Your task to perform on an android device: Go to location settings Image 0: 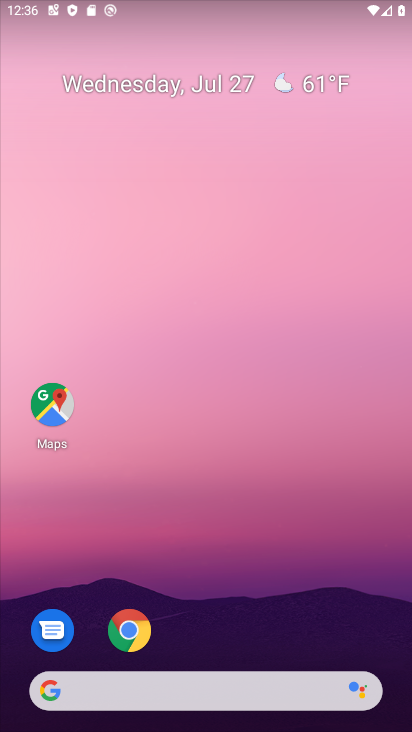
Step 0: drag from (175, 591) to (151, 328)
Your task to perform on an android device: Go to location settings Image 1: 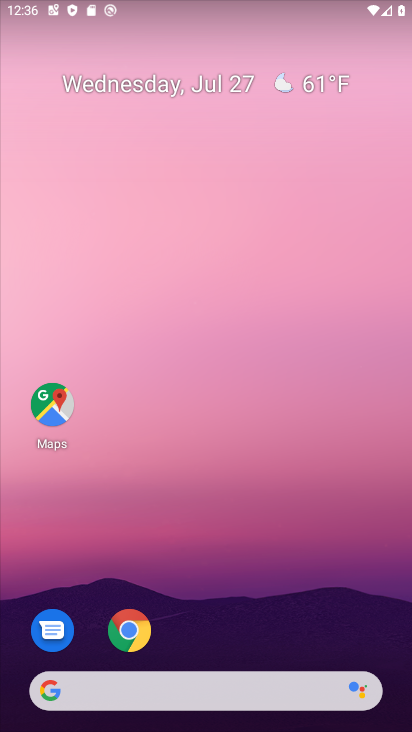
Step 1: drag from (201, 663) to (196, 167)
Your task to perform on an android device: Go to location settings Image 2: 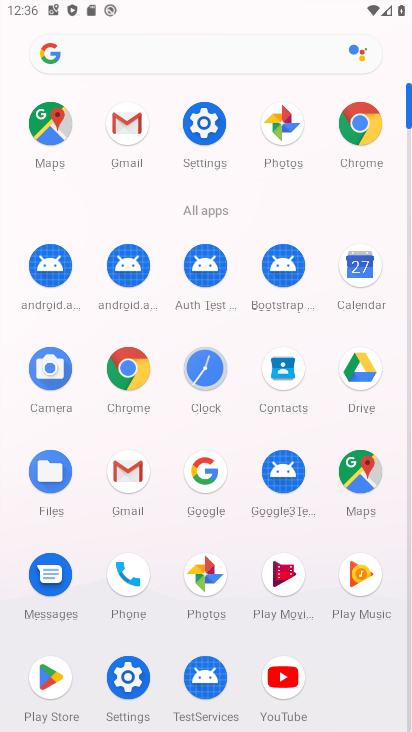
Step 2: click (206, 112)
Your task to perform on an android device: Go to location settings Image 3: 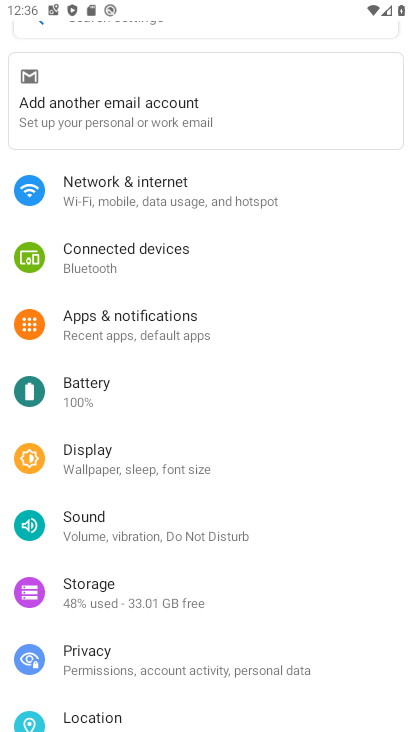
Step 3: click (62, 717)
Your task to perform on an android device: Go to location settings Image 4: 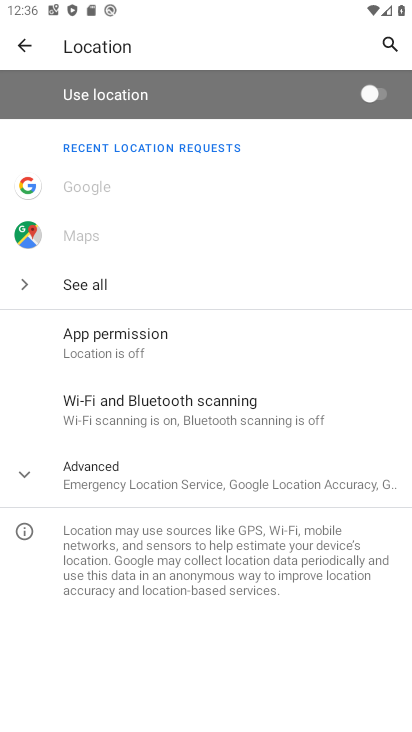
Step 4: click (112, 467)
Your task to perform on an android device: Go to location settings Image 5: 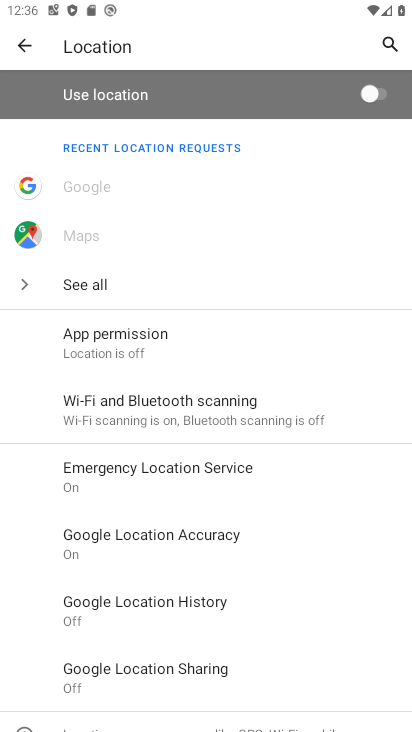
Step 5: task complete